Your task to perform on an android device: Open Youtube and go to the subscriptions tab Image 0: 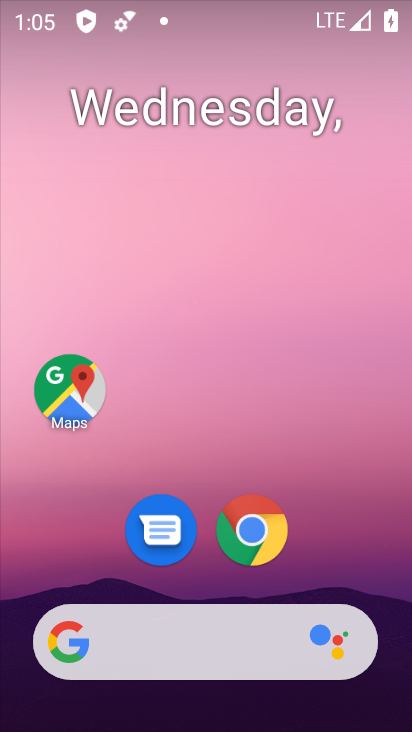
Step 0: drag from (337, 544) to (338, 159)
Your task to perform on an android device: Open Youtube and go to the subscriptions tab Image 1: 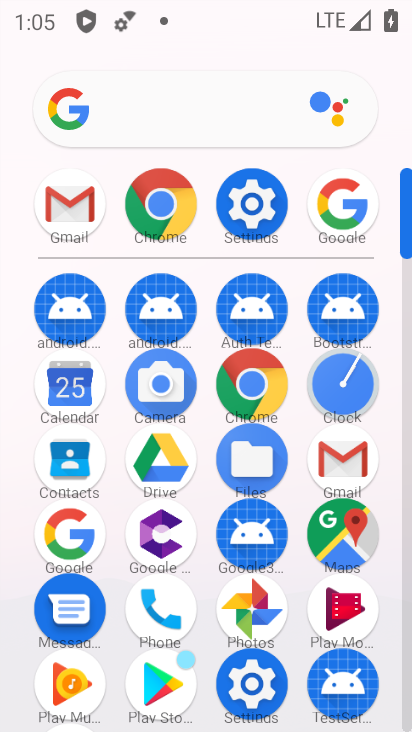
Step 1: drag from (202, 576) to (200, 227)
Your task to perform on an android device: Open Youtube and go to the subscriptions tab Image 2: 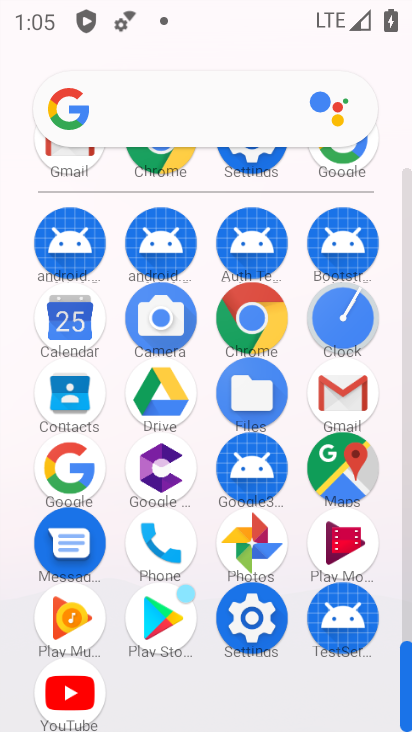
Step 2: click (85, 697)
Your task to perform on an android device: Open Youtube and go to the subscriptions tab Image 3: 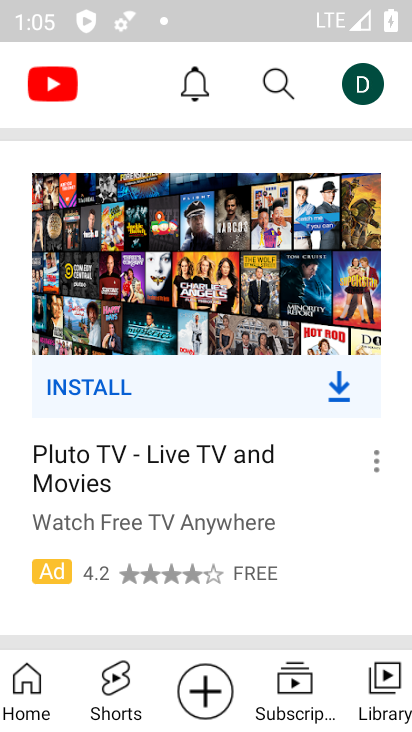
Step 3: click (296, 693)
Your task to perform on an android device: Open Youtube and go to the subscriptions tab Image 4: 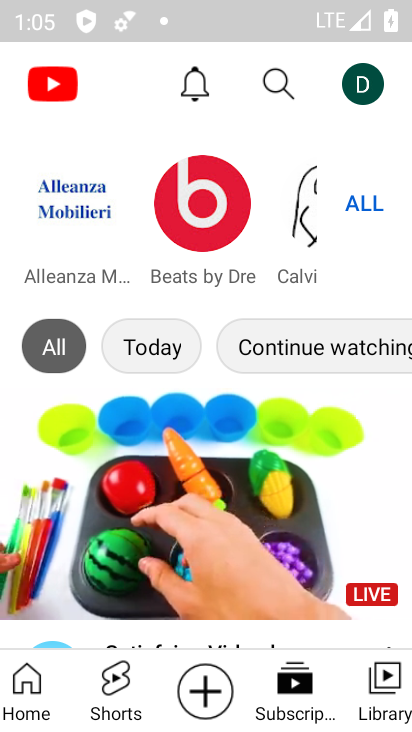
Step 4: task complete